Your task to perform on an android device: clear all cookies in the chrome app Image 0: 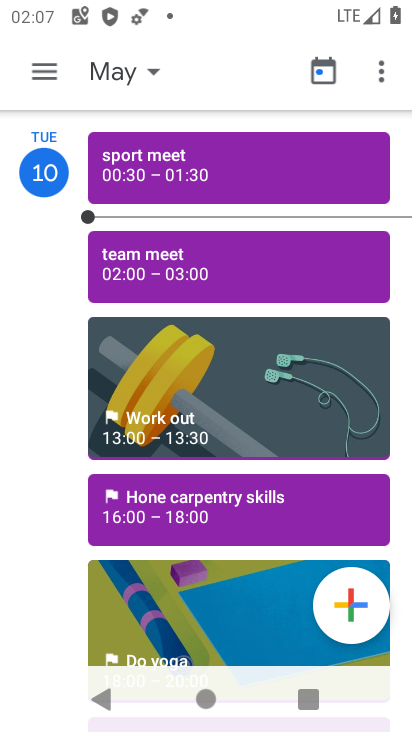
Step 0: press home button
Your task to perform on an android device: clear all cookies in the chrome app Image 1: 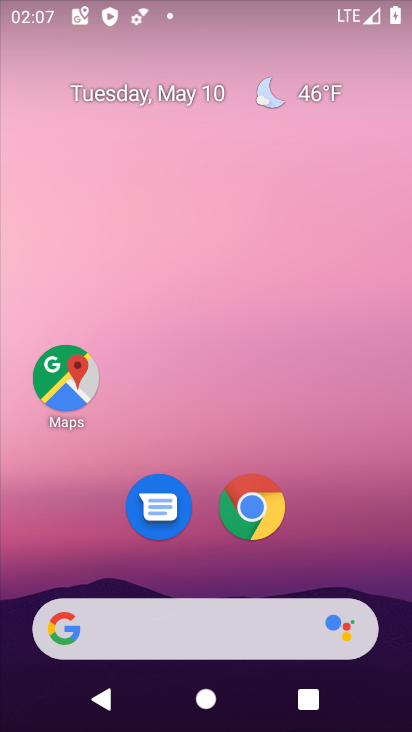
Step 1: drag from (282, 658) to (311, 348)
Your task to perform on an android device: clear all cookies in the chrome app Image 2: 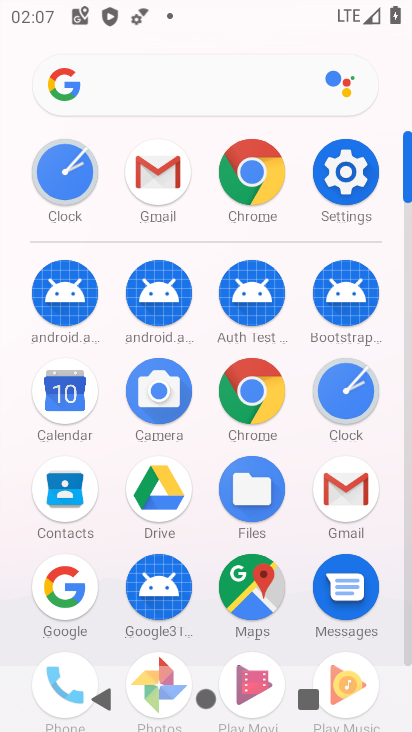
Step 2: click (240, 179)
Your task to perform on an android device: clear all cookies in the chrome app Image 3: 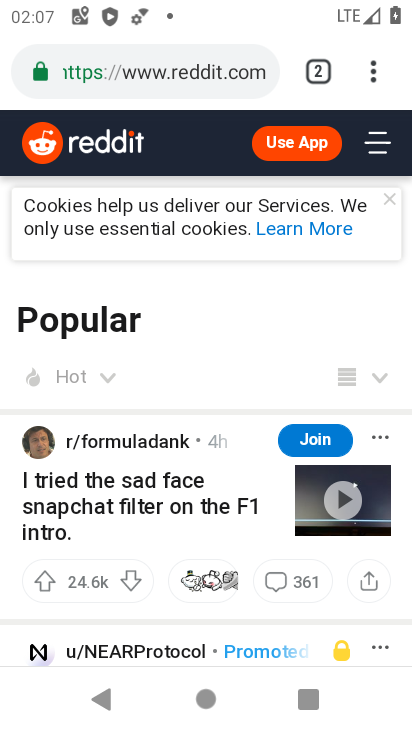
Step 3: click (365, 76)
Your task to perform on an android device: clear all cookies in the chrome app Image 4: 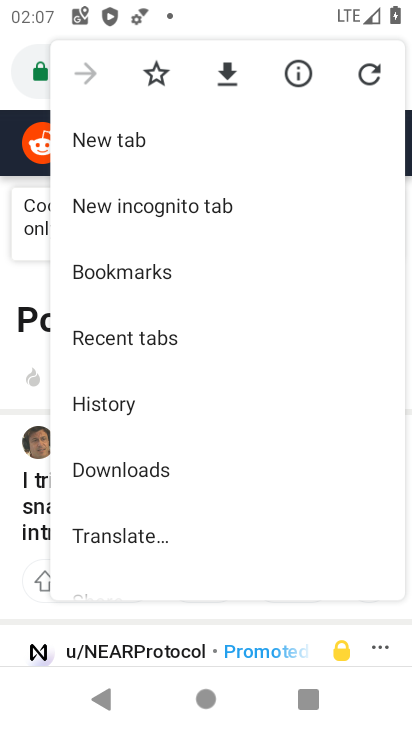
Step 4: click (119, 417)
Your task to perform on an android device: clear all cookies in the chrome app Image 5: 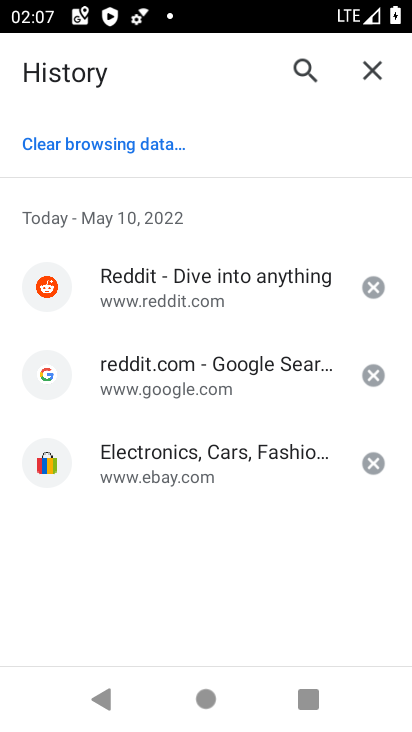
Step 5: click (118, 153)
Your task to perform on an android device: clear all cookies in the chrome app Image 6: 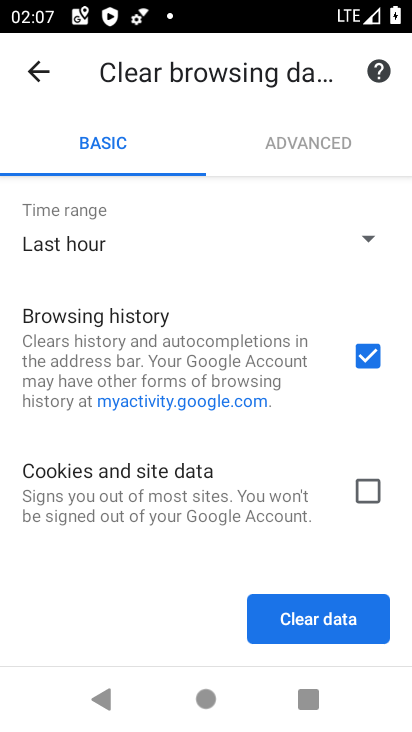
Step 6: click (373, 486)
Your task to perform on an android device: clear all cookies in the chrome app Image 7: 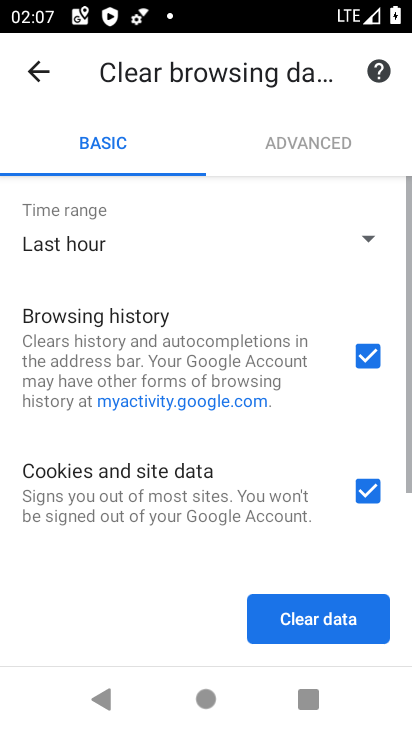
Step 7: click (365, 354)
Your task to perform on an android device: clear all cookies in the chrome app Image 8: 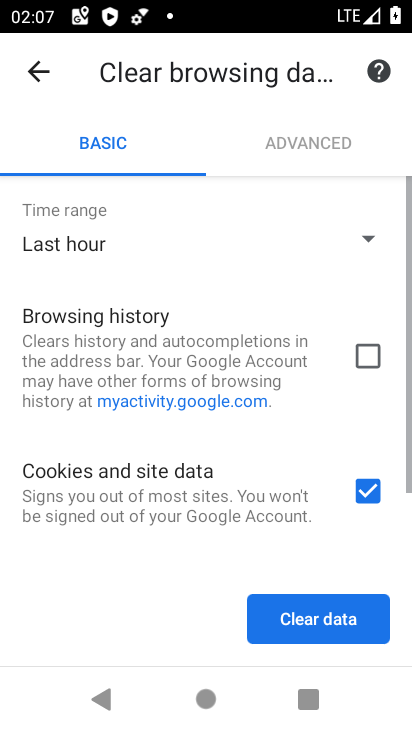
Step 8: click (305, 604)
Your task to perform on an android device: clear all cookies in the chrome app Image 9: 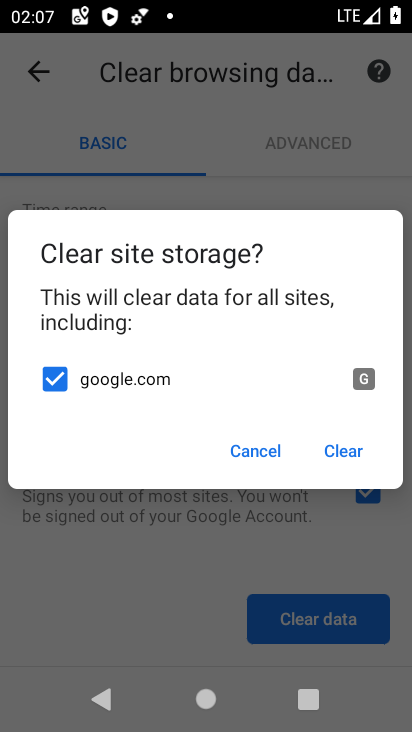
Step 9: task complete